Your task to perform on an android device: Go to ESPN.com Image 0: 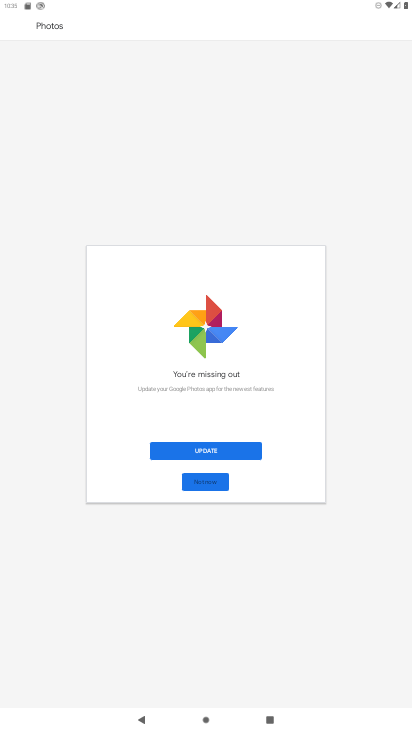
Step 0: press home button
Your task to perform on an android device: Go to ESPN.com Image 1: 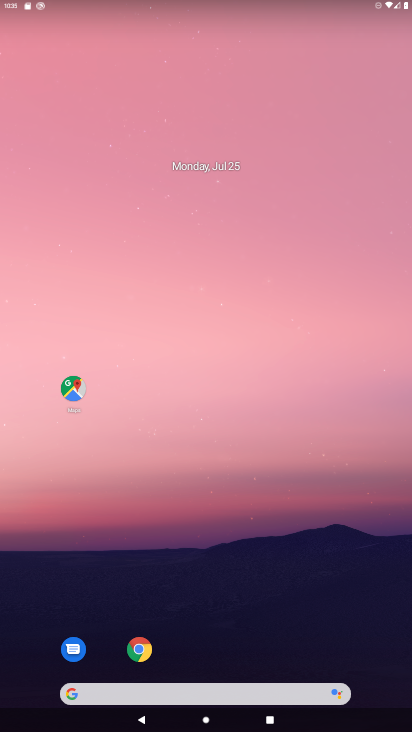
Step 1: click (140, 650)
Your task to perform on an android device: Go to ESPN.com Image 2: 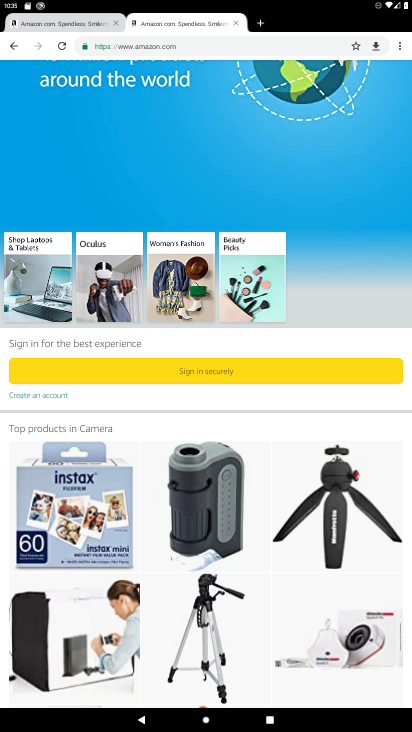
Step 2: click (203, 47)
Your task to perform on an android device: Go to ESPN.com Image 3: 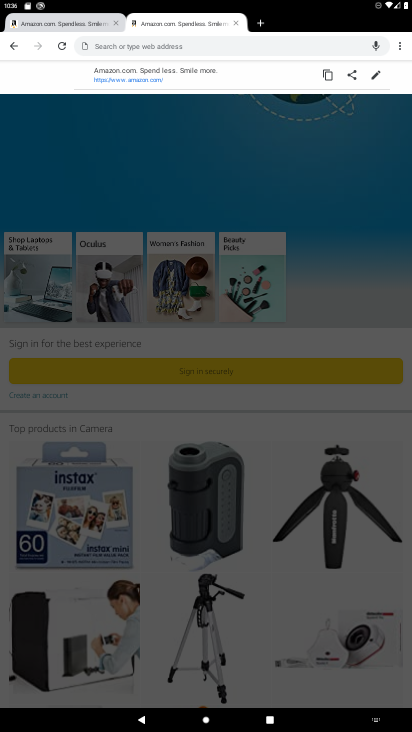
Step 3: type "ESPN.com"
Your task to perform on an android device: Go to ESPN.com Image 4: 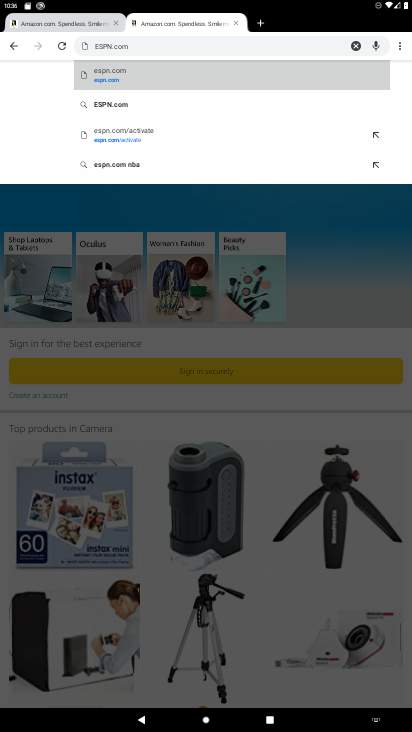
Step 4: click (112, 68)
Your task to perform on an android device: Go to ESPN.com Image 5: 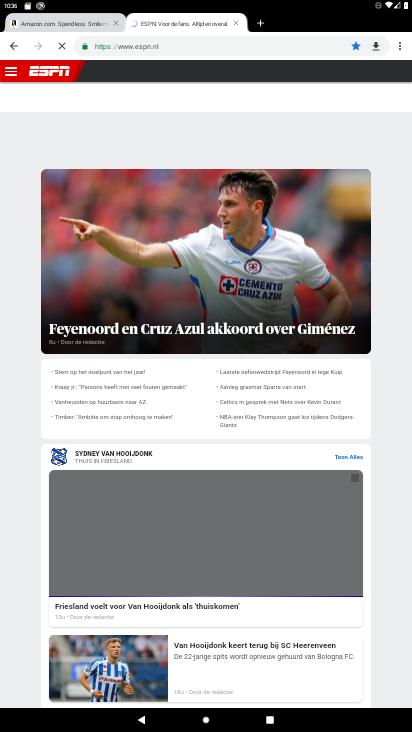
Step 5: drag from (382, 474) to (338, 115)
Your task to perform on an android device: Go to ESPN.com Image 6: 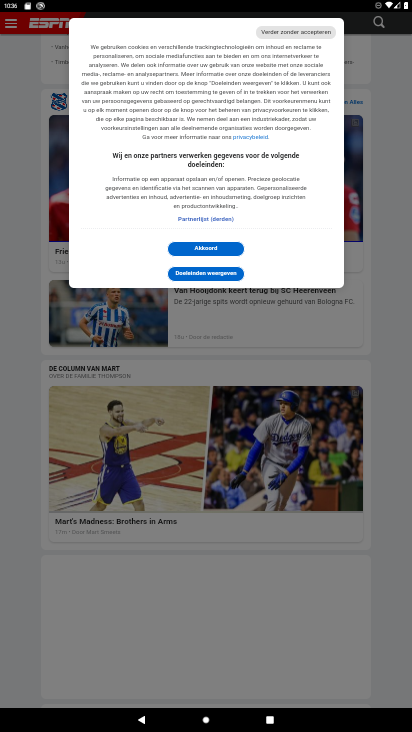
Step 6: drag from (377, 546) to (350, 183)
Your task to perform on an android device: Go to ESPN.com Image 7: 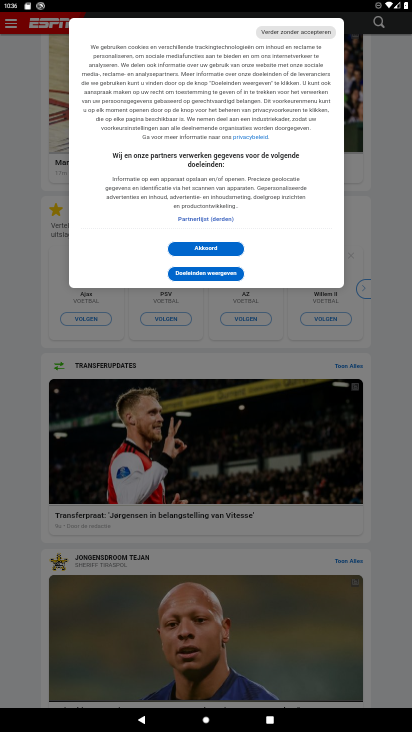
Step 7: click (207, 245)
Your task to perform on an android device: Go to ESPN.com Image 8: 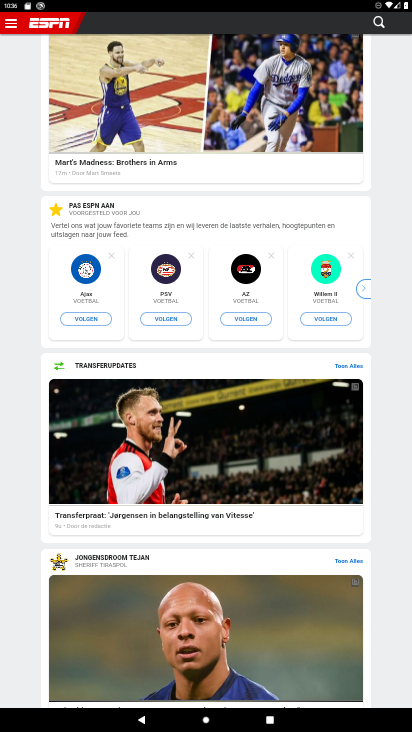
Step 8: task complete